Your task to perform on an android device: turn on wifi Image 0: 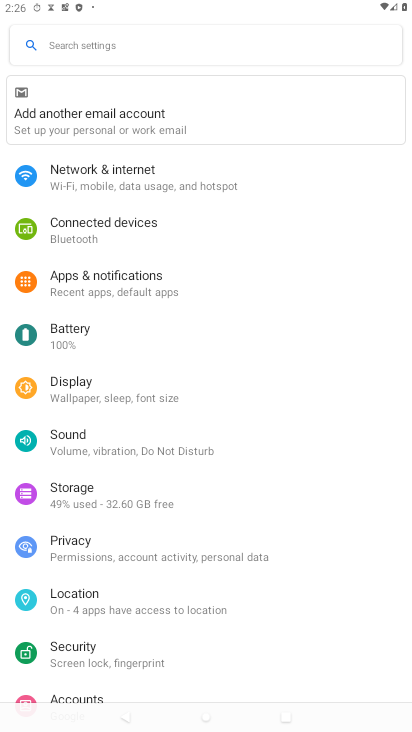
Step 0: press home button
Your task to perform on an android device: turn on wifi Image 1: 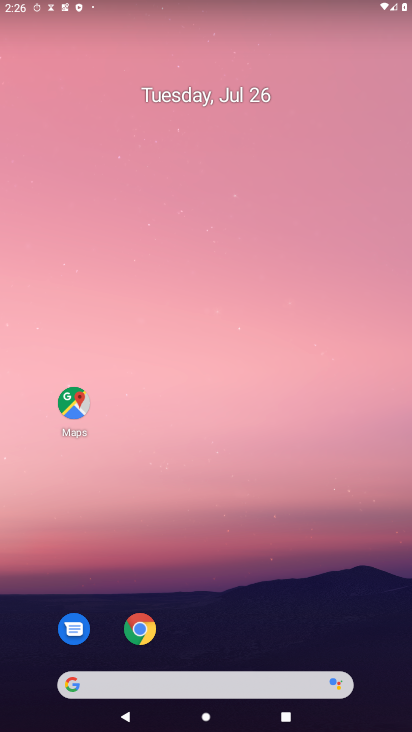
Step 1: drag from (239, 658) to (239, 0)
Your task to perform on an android device: turn on wifi Image 2: 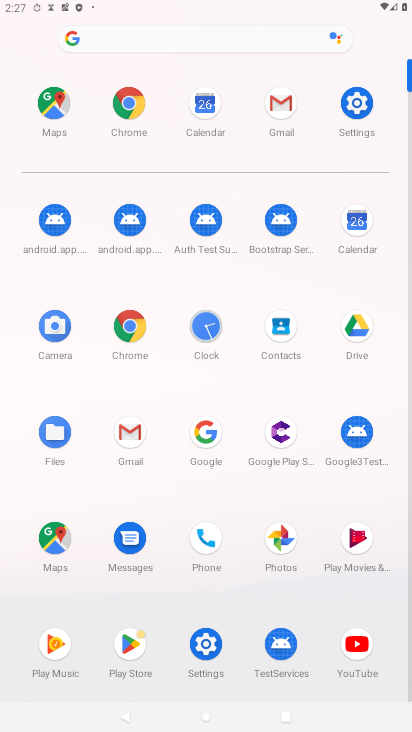
Step 2: click (349, 90)
Your task to perform on an android device: turn on wifi Image 3: 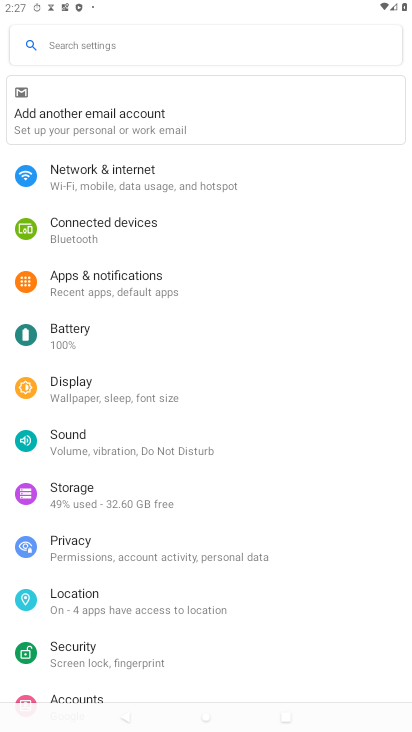
Step 3: click (107, 178)
Your task to perform on an android device: turn on wifi Image 4: 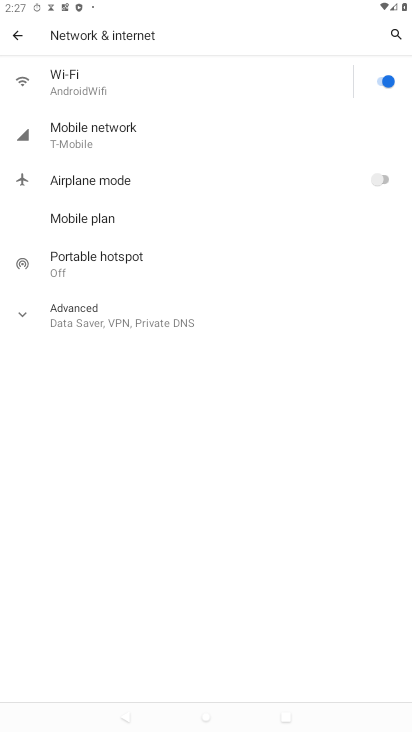
Step 4: task complete